Your task to perform on an android device: Open Chrome and go to settings Image 0: 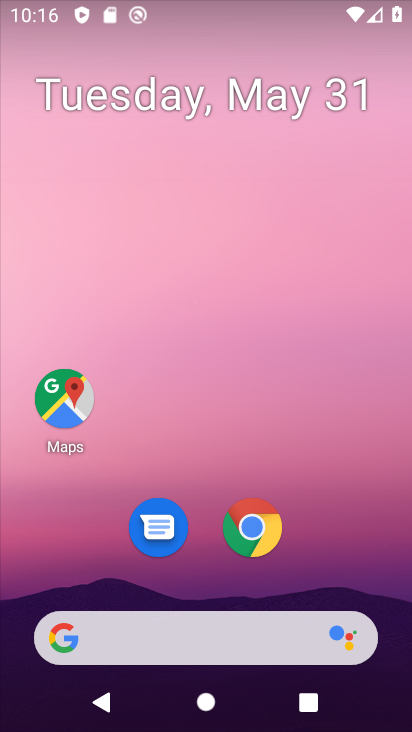
Step 0: drag from (397, 595) to (328, 162)
Your task to perform on an android device: Open Chrome and go to settings Image 1: 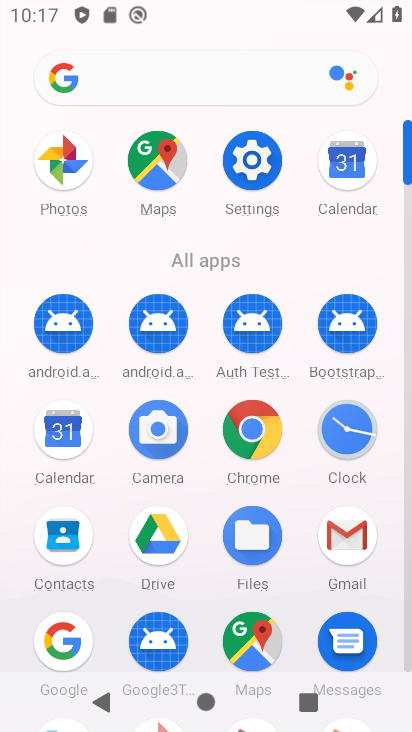
Step 1: click (257, 439)
Your task to perform on an android device: Open Chrome and go to settings Image 2: 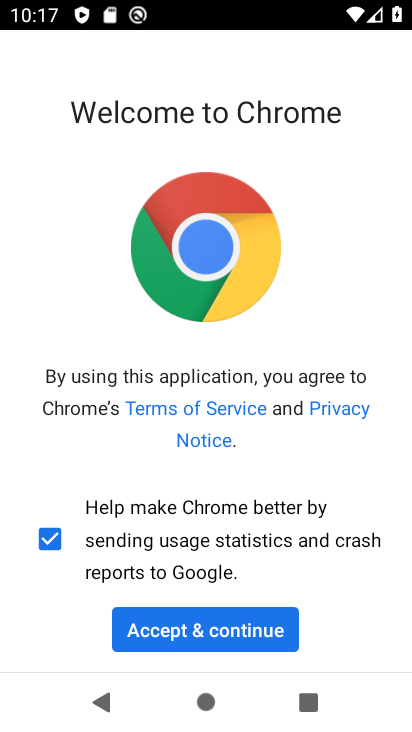
Step 2: click (250, 615)
Your task to perform on an android device: Open Chrome and go to settings Image 3: 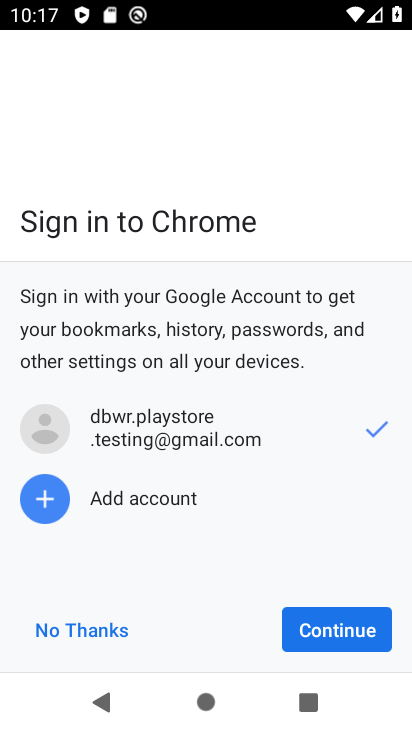
Step 3: click (325, 627)
Your task to perform on an android device: Open Chrome and go to settings Image 4: 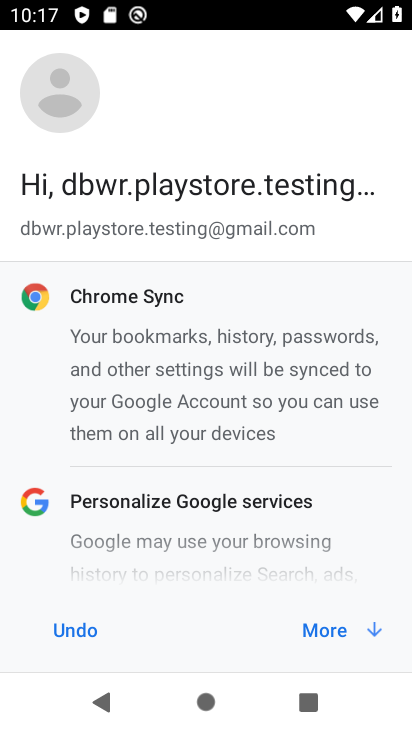
Step 4: click (325, 627)
Your task to perform on an android device: Open Chrome and go to settings Image 5: 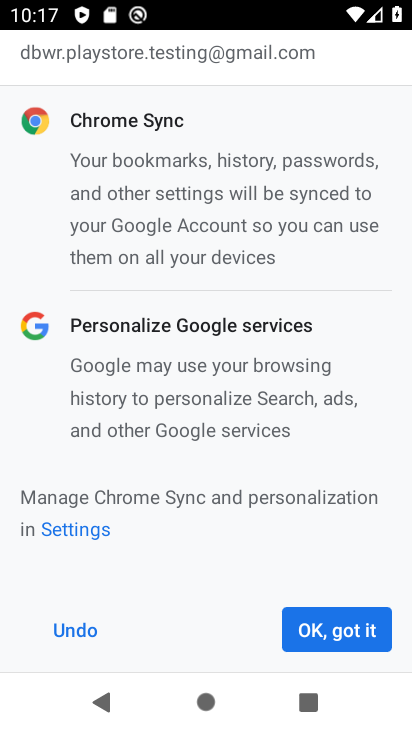
Step 5: click (325, 627)
Your task to perform on an android device: Open Chrome and go to settings Image 6: 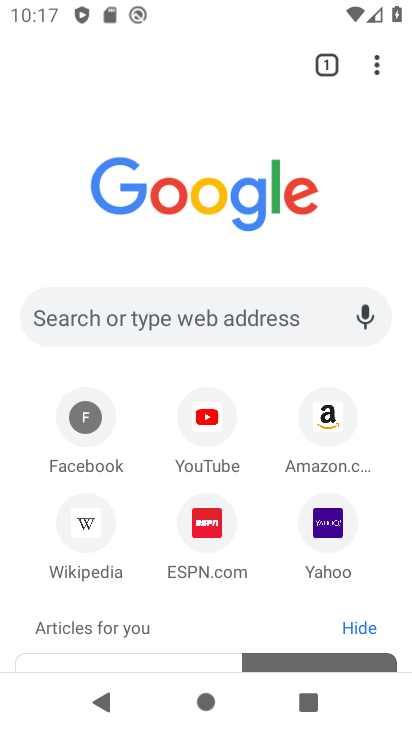
Step 6: click (379, 80)
Your task to perform on an android device: Open Chrome and go to settings Image 7: 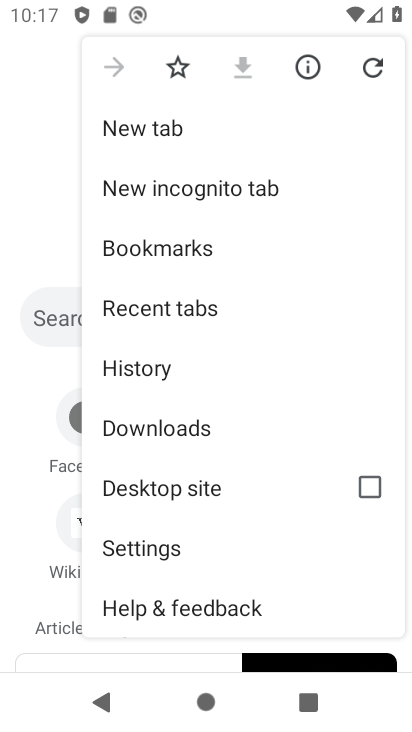
Step 7: drag from (254, 611) to (229, 487)
Your task to perform on an android device: Open Chrome and go to settings Image 8: 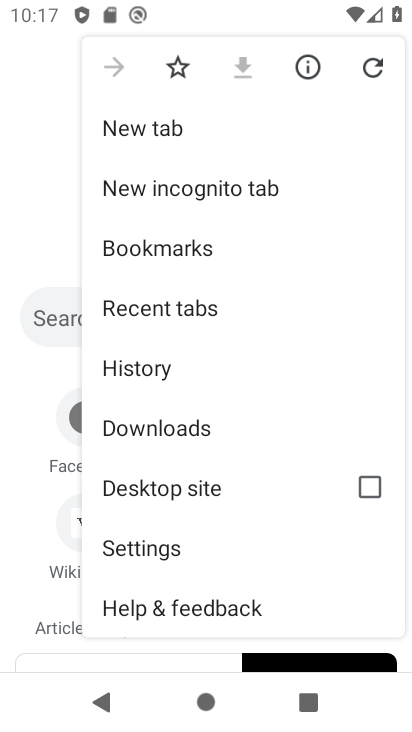
Step 8: click (208, 546)
Your task to perform on an android device: Open Chrome and go to settings Image 9: 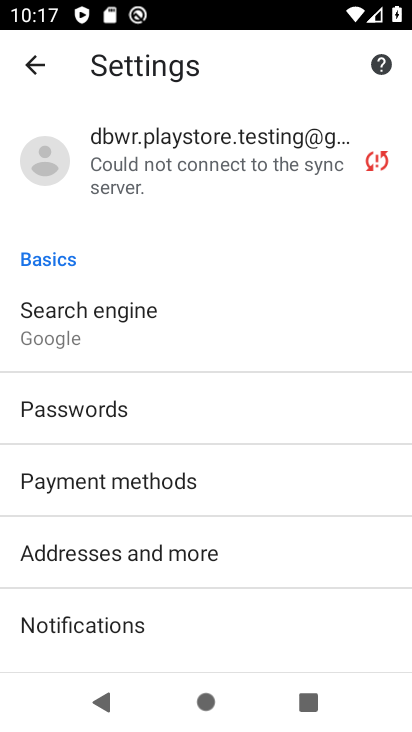
Step 9: task complete